Your task to perform on an android device: What's the weather today? Image 0: 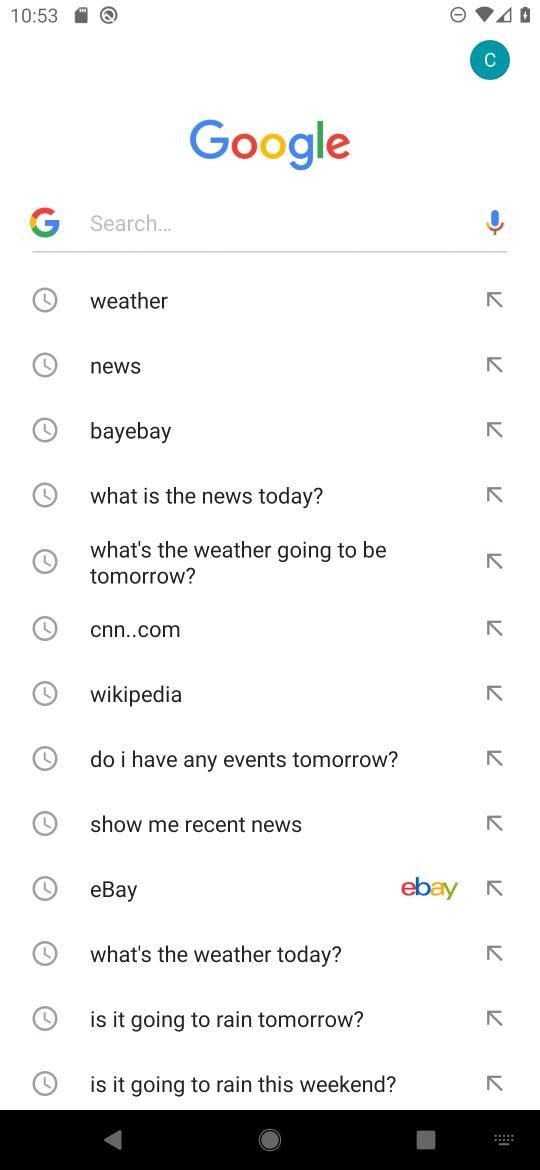
Step 0: press home button
Your task to perform on an android device: What's the weather today? Image 1: 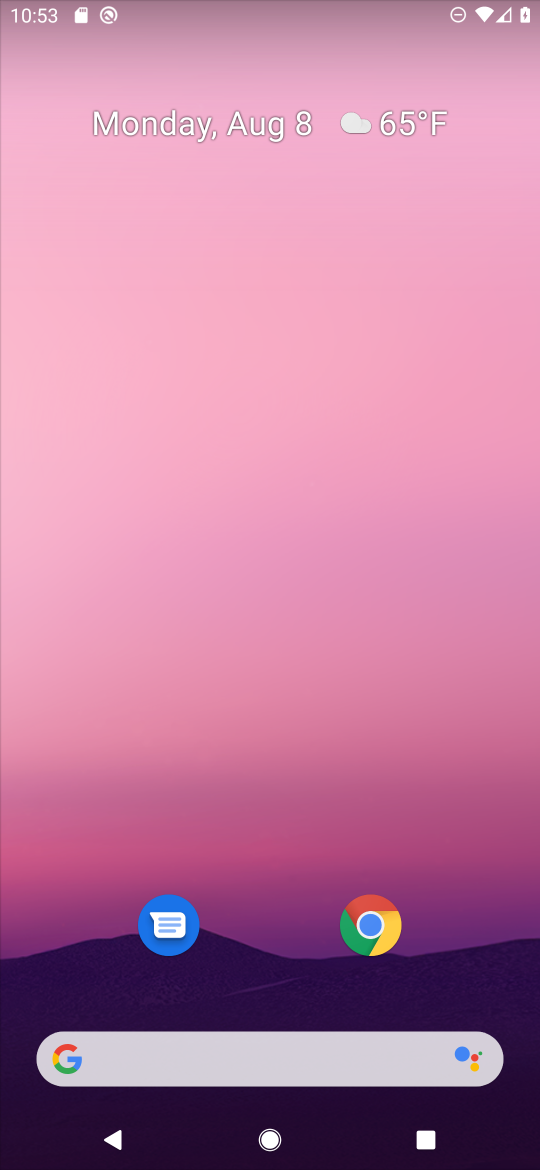
Step 1: drag from (265, 859) to (373, 52)
Your task to perform on an android device: What's the weather today? Image 2: 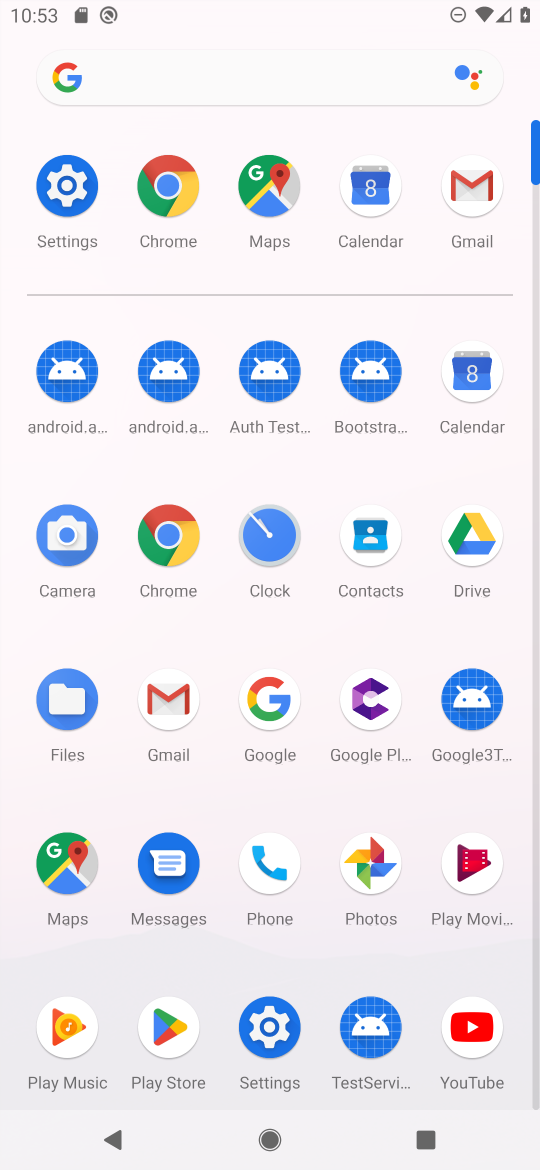
Step 2: press home button
Your task to perform on an android device: What's the weather today? Image 3: 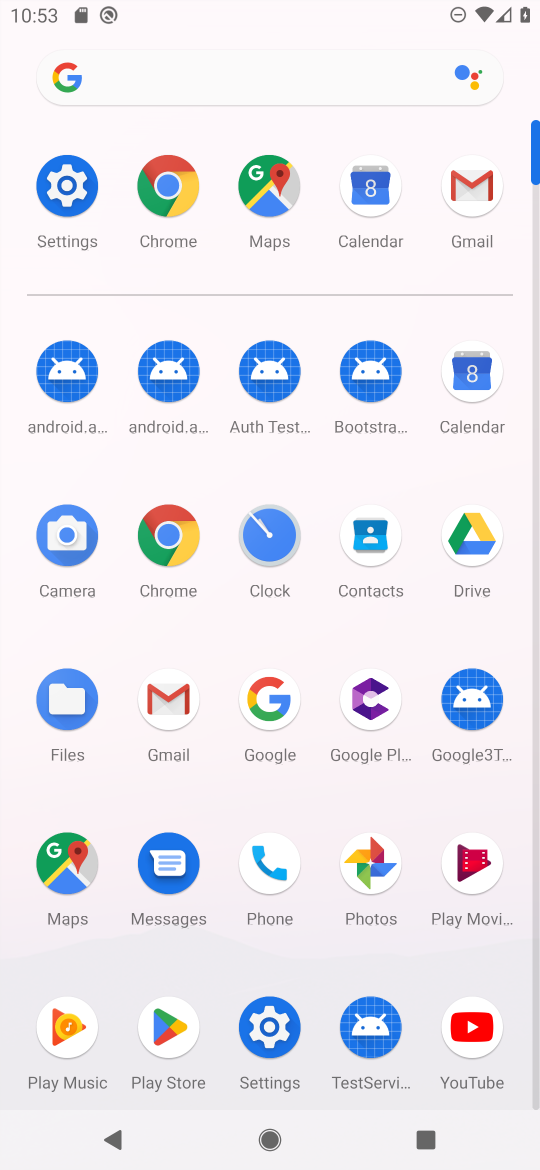
Step 3: press home button
Your task to perform on an android device: What's the weather today? Image 4: 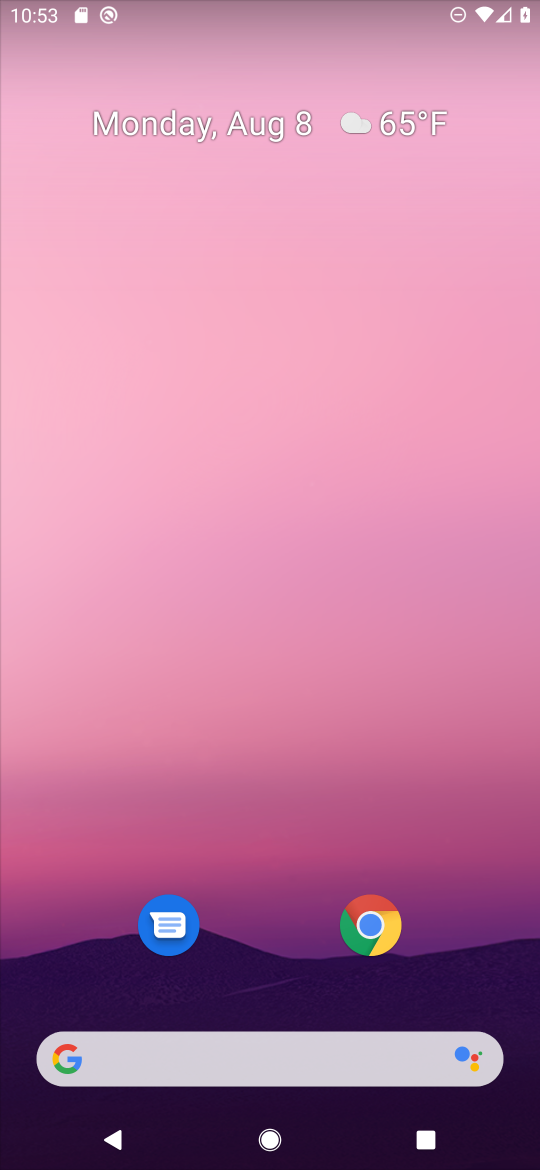
Step 4: click (421, 117)
Your task to perform on an android device: What's the weather today? Image 5: 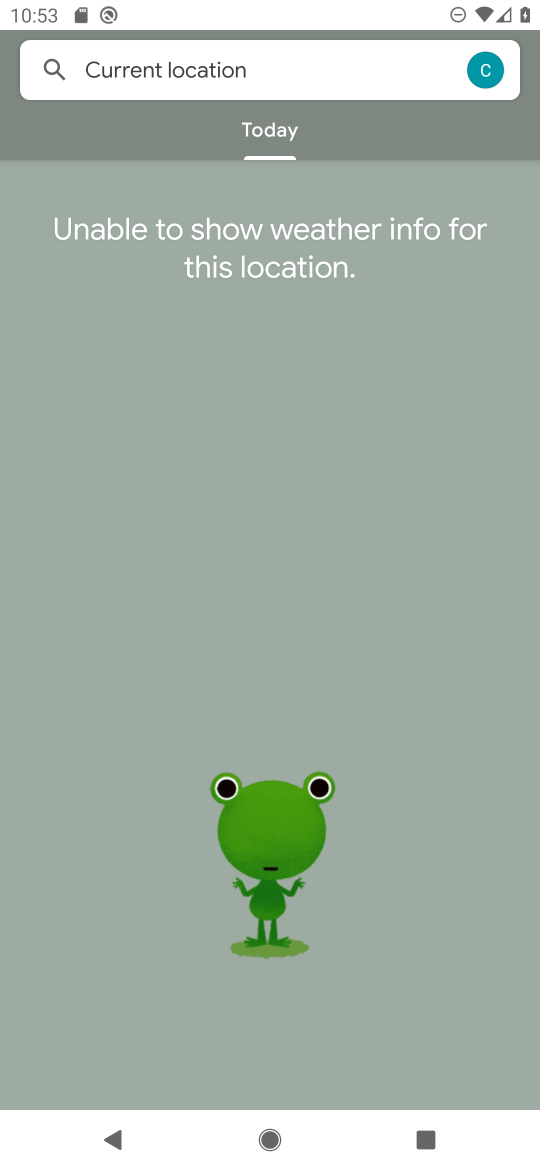
Step 5: task complete